Your task to perform on an android device: Go to privacy settings Image 0: 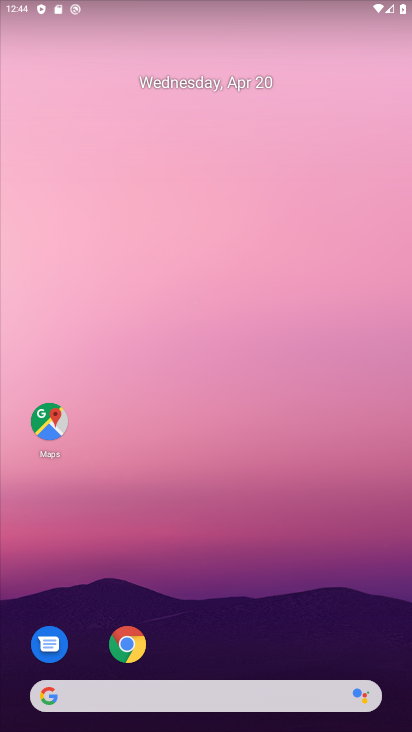
Step 0: drag from (261, 220) to (263, 0)
Your task to perform on an android device: Go to privacy settings Image 1: 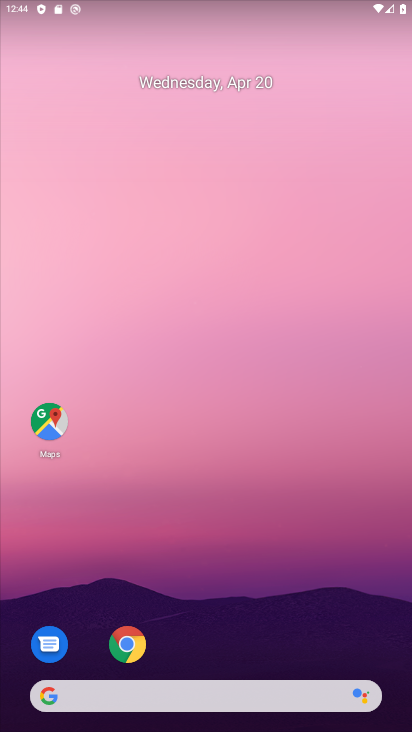
Step 1: drag from (227, 600) to (249, 192)
Your task to perform on an android device: Go to privacy settings Image 2: 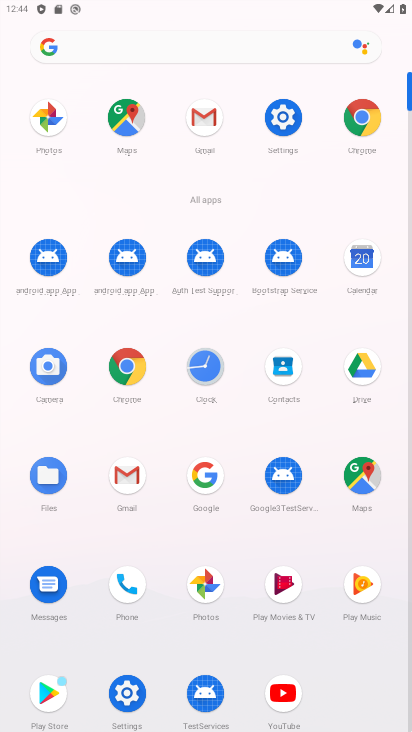
Step 2: click (283, 133)
Your task to perform on an android device: Go to privacy settings Image 3: 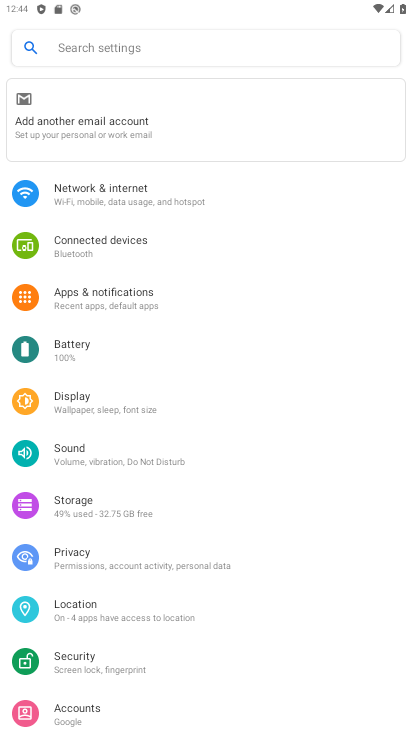
Step 3: click (109, 558)
Your task to perform on an android device: Go to privacy settings Image 4: 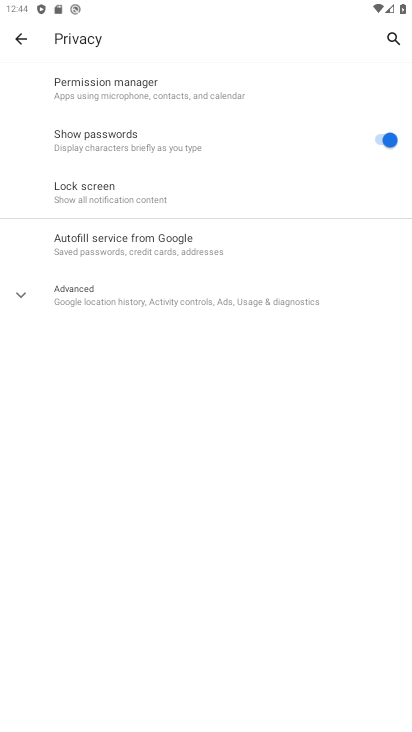
Step 4: task complete